Your task to perform on an android device: Go to Amazon Image 0: 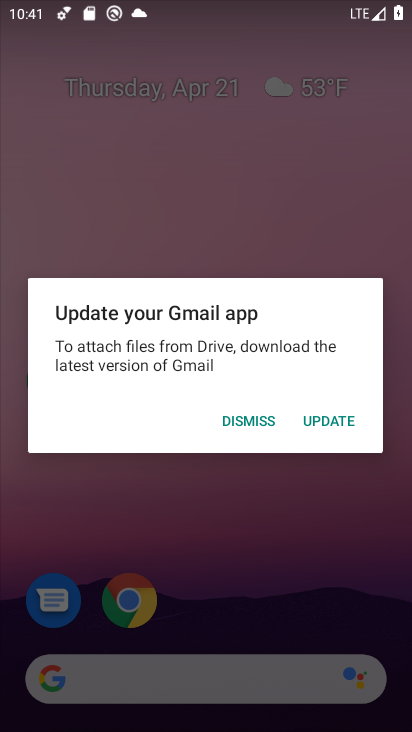
Step 0: press home button
Your task to perform on an android device: Go to Amazon Image 1: 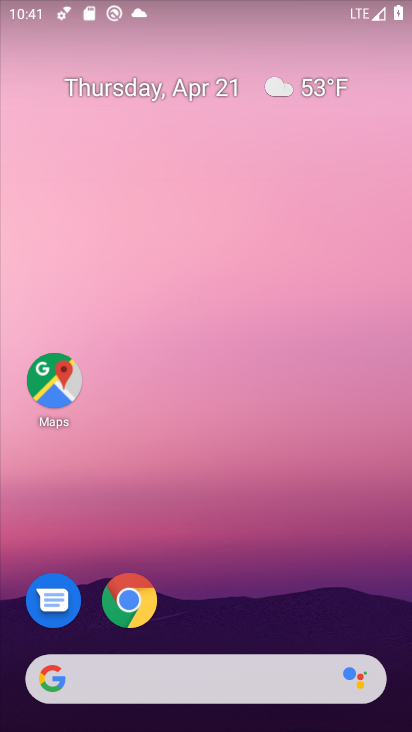
Step 1: click (133, 592)
Your task to perform on an android device: Go to Amazon Image 2: 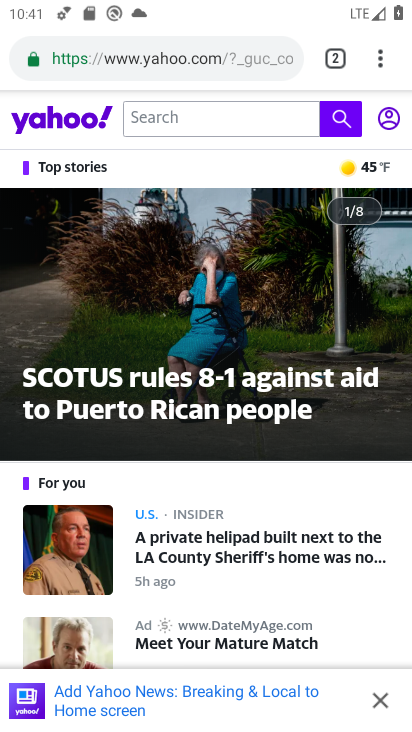
Step 2: click (337, 60)
Your task to perform on an android device: Go to Amazon Image 3: 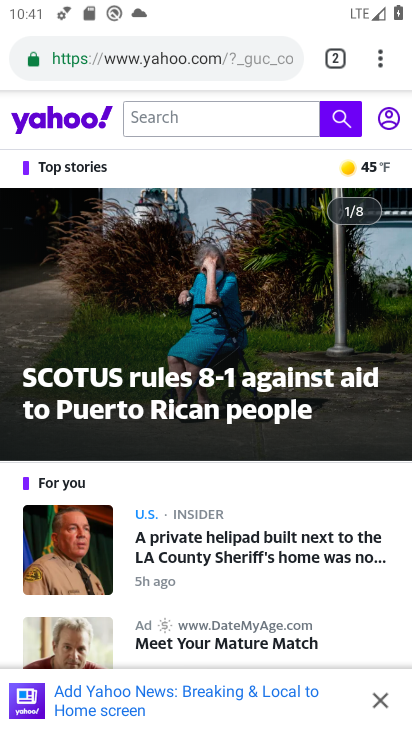
Step 3: click (337, 48)
Your task to perform on an android device: Go to Amazon Image 4: 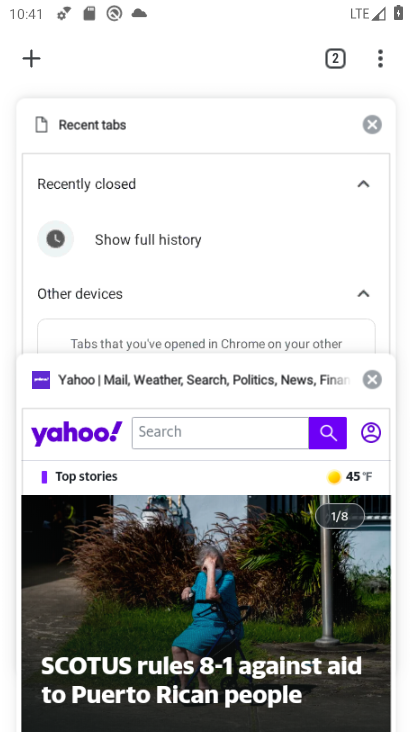
Step 4: click (28, 66)
Your task to perform on an android device: Go to Amazon Image 5: 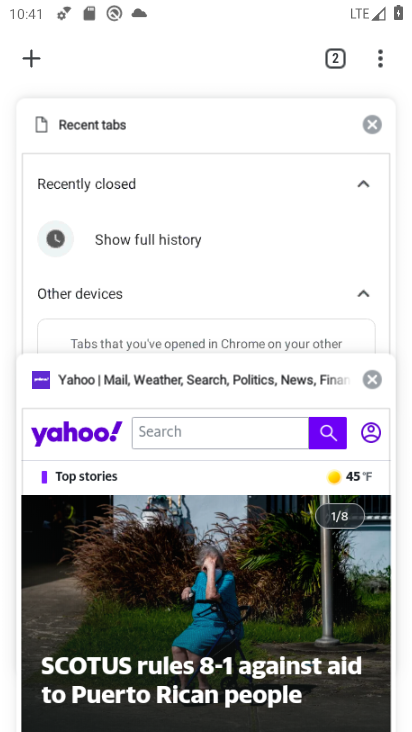
Step 5: click (28, 61)
Your task to perform on an android device: Go to Amazon Image 6: 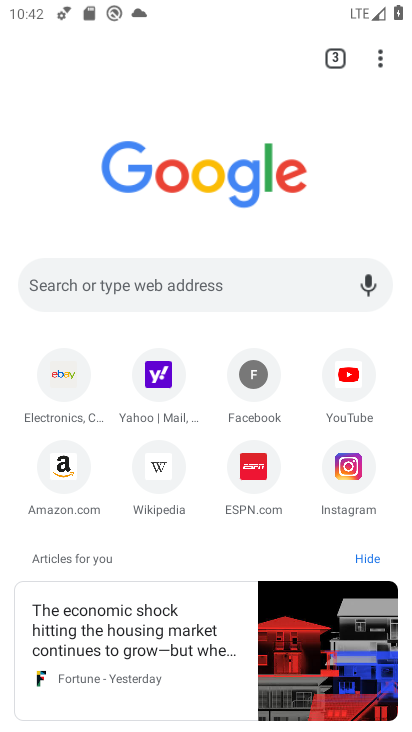
Step 6: click (60, 467)
Your task to perform on an android device: Go to Amazon Image 7: 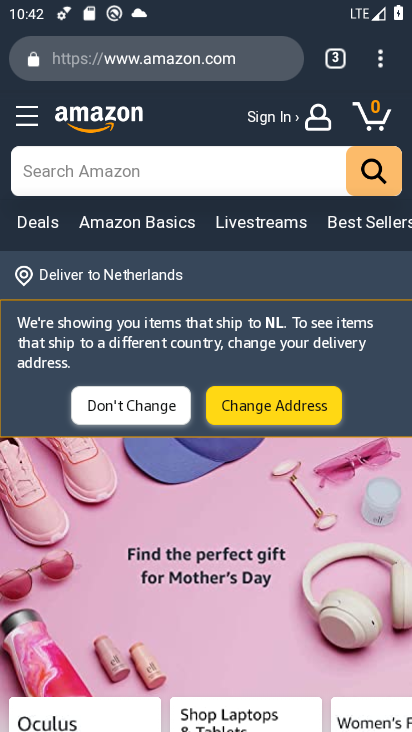
Step 7: task complete